Your task to perform on an android device: Open settings Image 0: 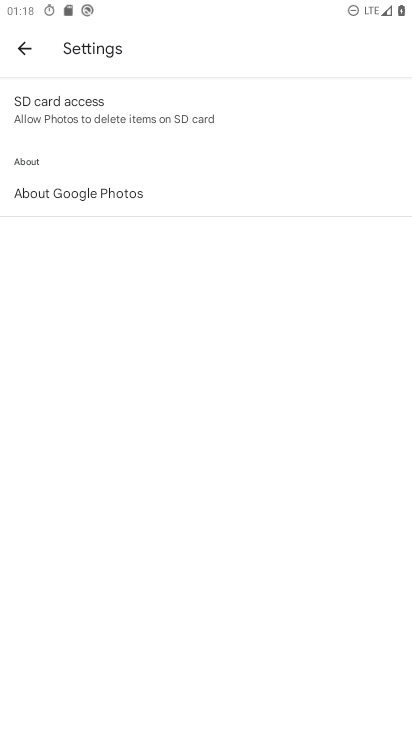
Step 0: press home button
Your task to perform on an android device: Open settings Image 1: 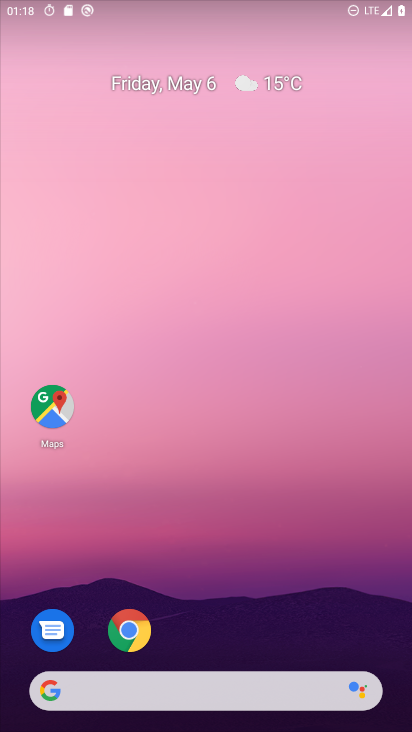
Step 1: drag from (278, 598) to (299, 149)
Your task to perform on an android device: Open settings Image 2: 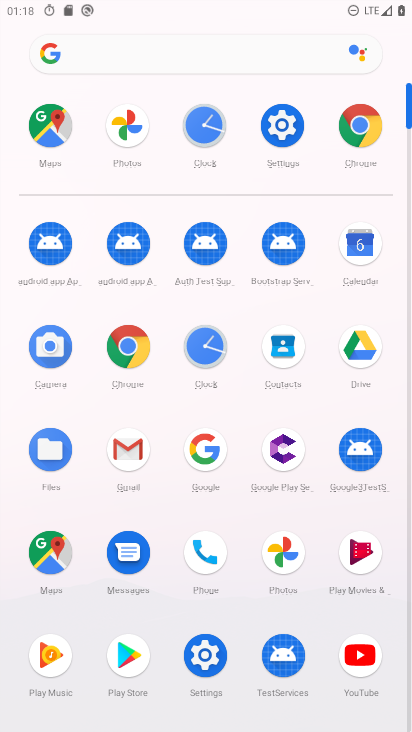
Step 2: click (290, 133)
Your task to perform on an android device: Open settings Image 3: 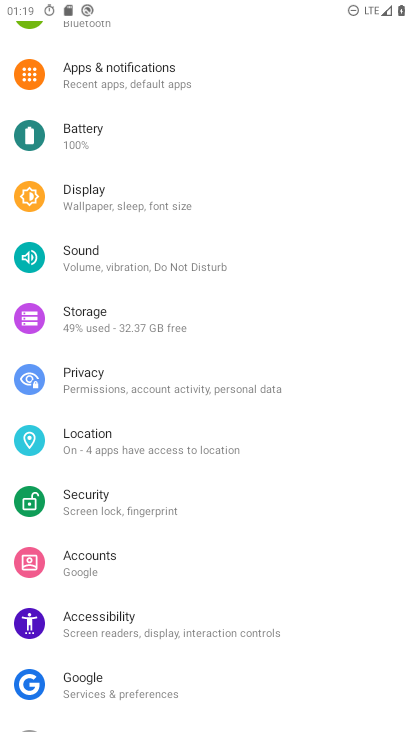
Step 3: task complete